Your task to perform on an android device: toggle sleep mode Image 0: 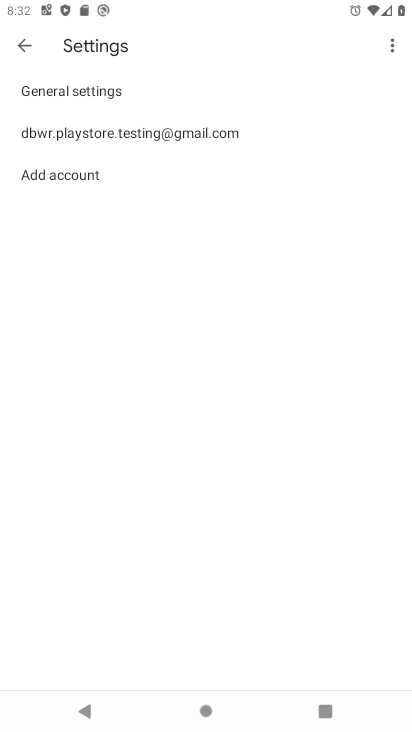
Step 0: press home button
Your task to perform on an android device: toggle sleep mode Image 1: 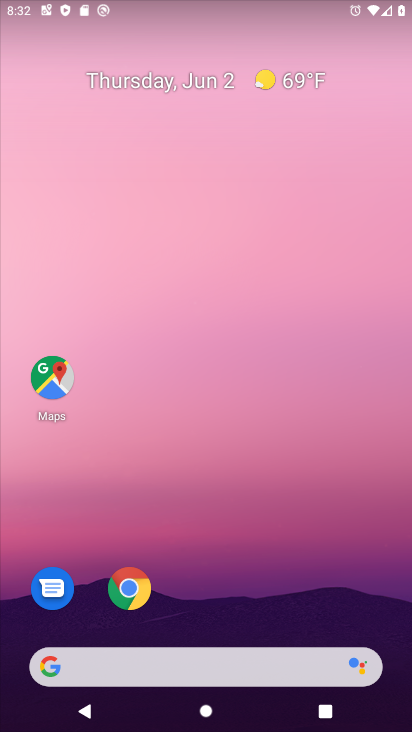
Step 1: drag from (244, 728) to (258, 53)
Your task to perform on an android device: toggle sleep mode Image 2: 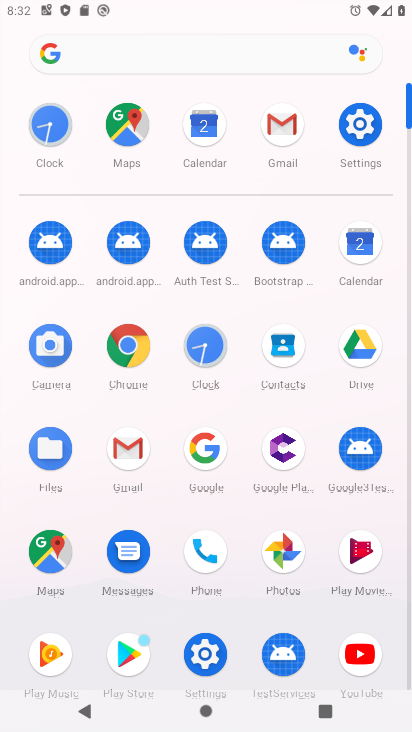
Step 2: click (361, 126)
Your task to perform on an android device: toggle sleep mode Image 3: 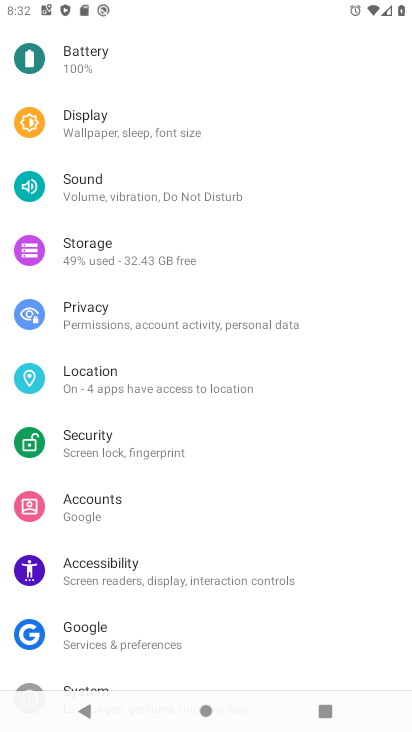
Step 3: task complete